Your task to perform on an android device: What's the weather today? Image 0: 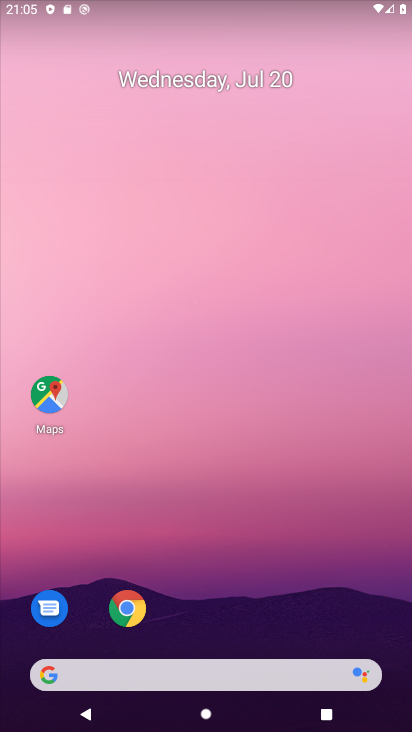
Step 0: click (261, 233)
Your task to perform on an android device: What's the weather today? Image 1: 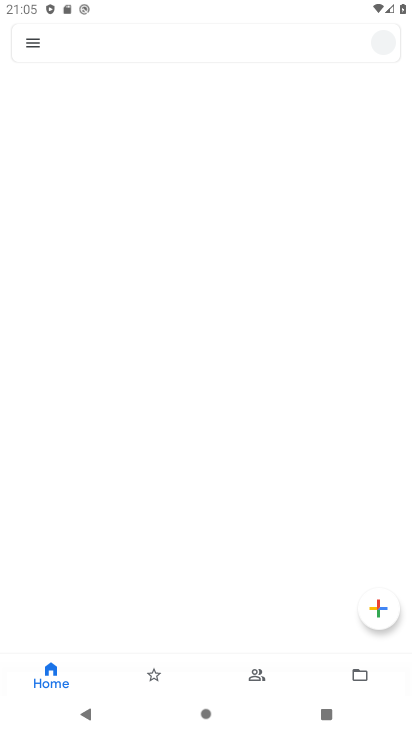
Step 1: drag from (272, 524) to (284, 117)
Your task to perform on an android device: What's the weather today? Image 2: 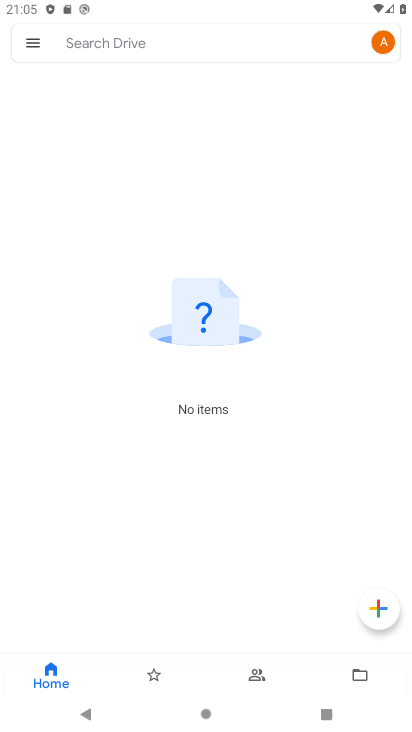
Step 2: press back button
Your task to perform on an android device: What's the weather today? Image 3: 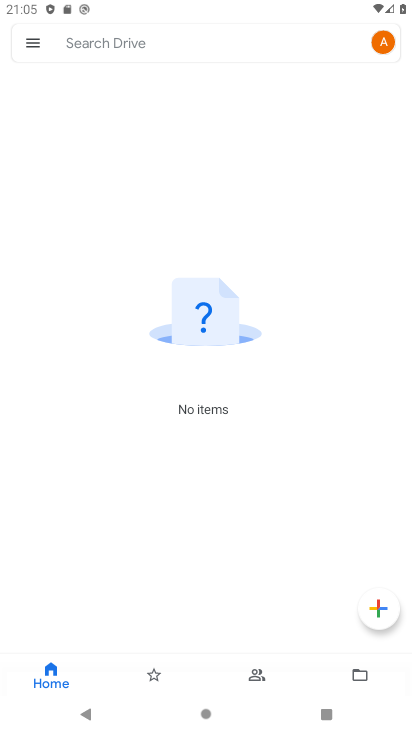
Step 3: press back button
Your task to perform on an android device: What's the weather today? Image 4: 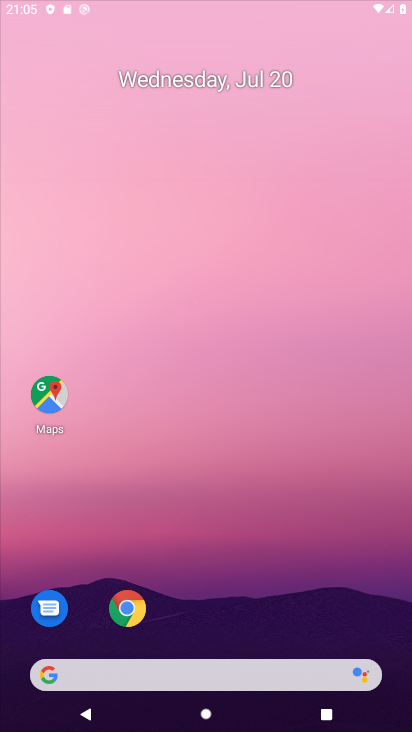
Step 4: press back button
Your task to perform on an android device: What's the weather today? Image 5: 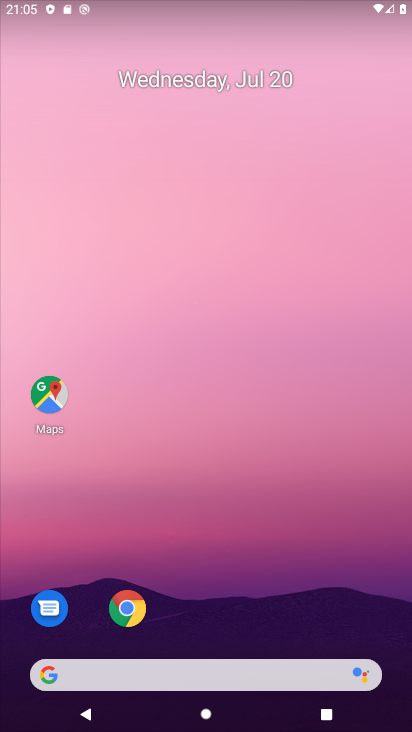
Step 5: drag from (63, 145) to (392, 308)
Your task to perform on an android device: What's the weather today? Image 6: 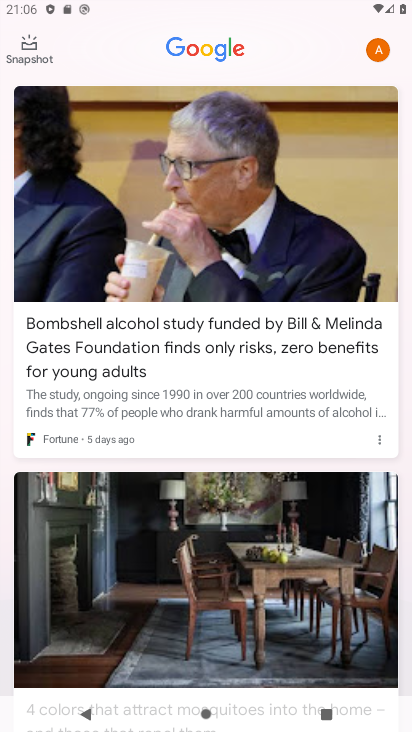
Step 6: drag from (133, 71) to (228, 561)
Your task to perform on an android device: What's the weather today? Image 7: 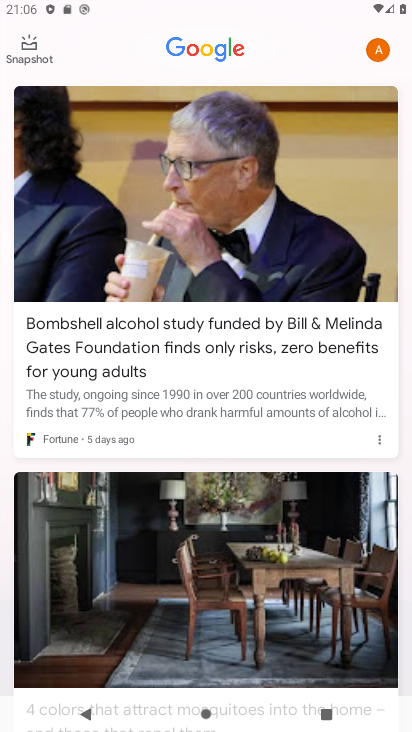
Step 7: drag from (247, 180) to (279, 472)
Your task to perform on an android device: What's the weather today? Image 8: 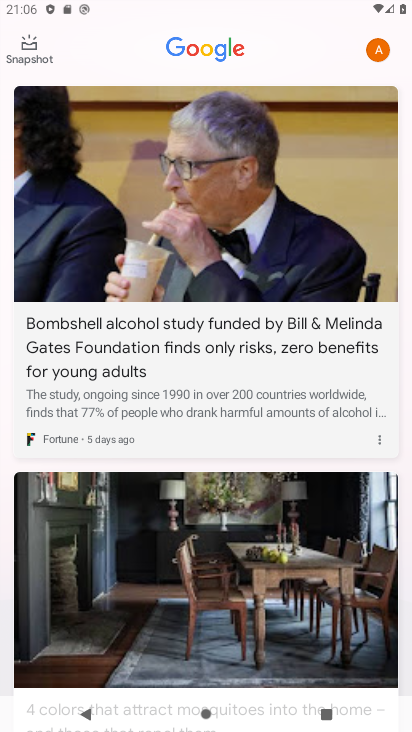
Step 8: drag from (288, 198) to (288, 571)
Your task to perform on an android device: What's the weather today? Image 9: 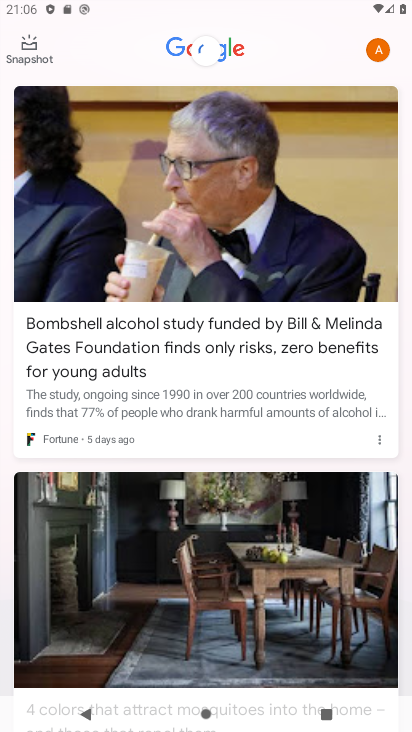
Step 9: drag from (208, 385) to (208, 568)
Your task to perform on an android device: What's the weather today? Image 10: 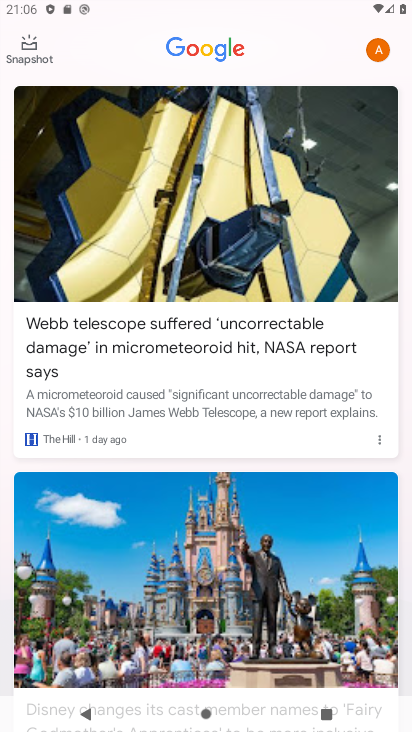
Step 10: drag from (103, 81) to (394, 292)
Your task to perform on an android device: What's the weather today? Image 11: 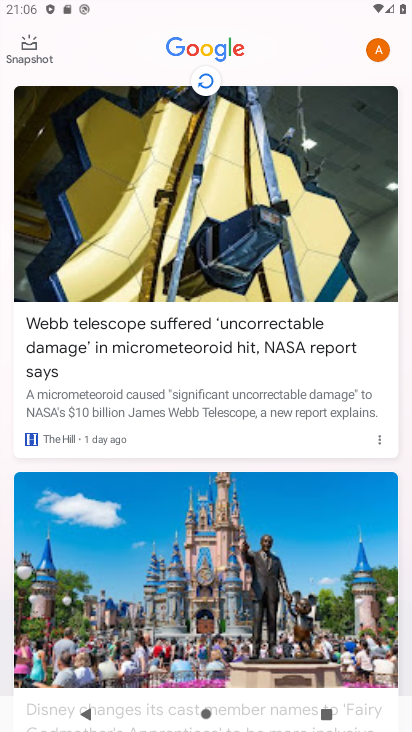
Step 11: press back button
Your task to perform on an android device: What's the weather today? Image 12: 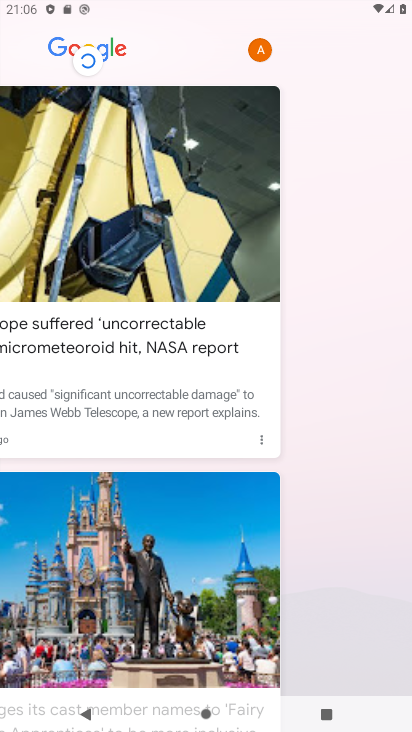
Step 12: press back button
Your task to perform on an android device: What's the weather today? Image 13: 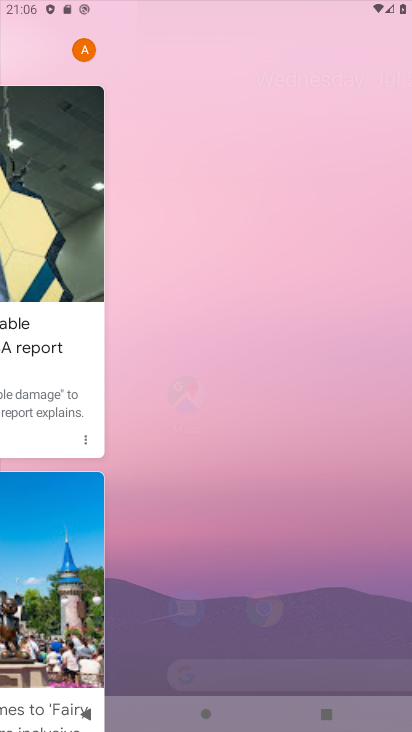
Step 13: click (409, 142)
Your task to perform on an android device: What's the weather today? Image 14: 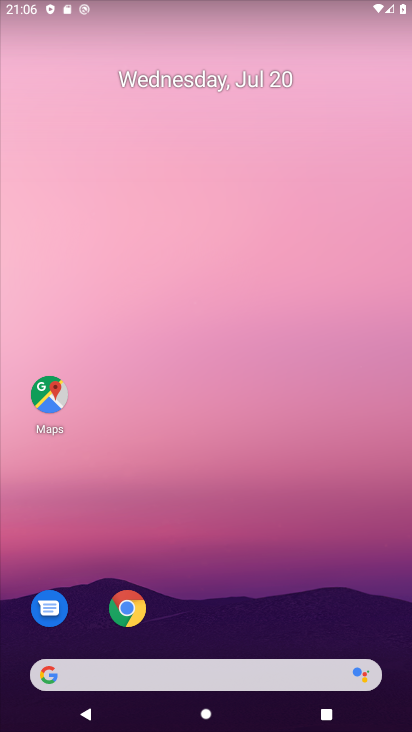
Step 14: press back button
Your task to perform on an android device: What's the weather today? Image 15: 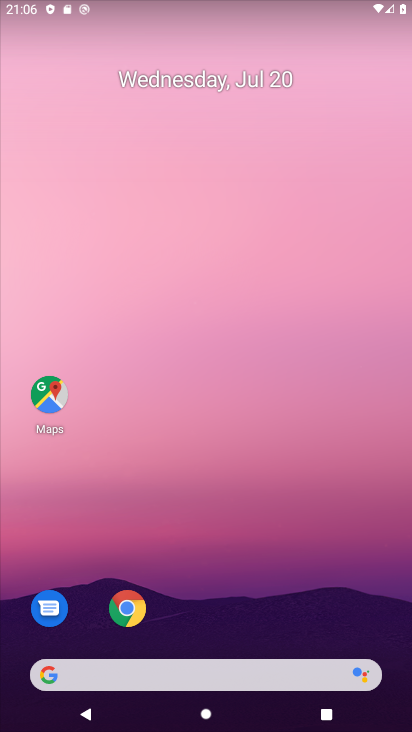
Step 15: drag from (158, 554) to (141, 195)
Your task to perform on an android device: What's the weather today? Image 16: 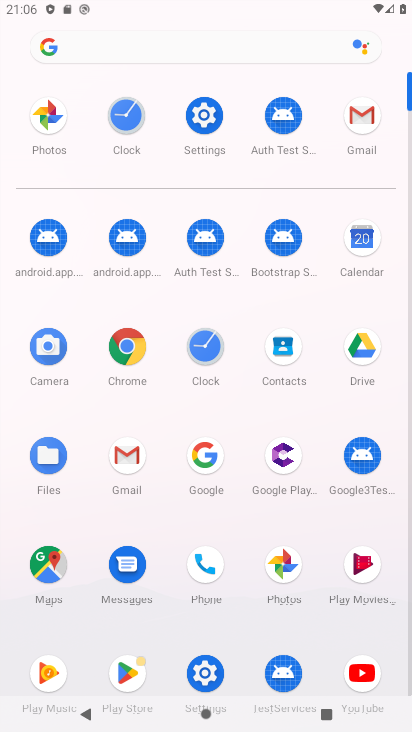
Step 16: drag from (167, 630) to (167, 276)
Your task to perform on an android device: What's the weather today? Image 17: 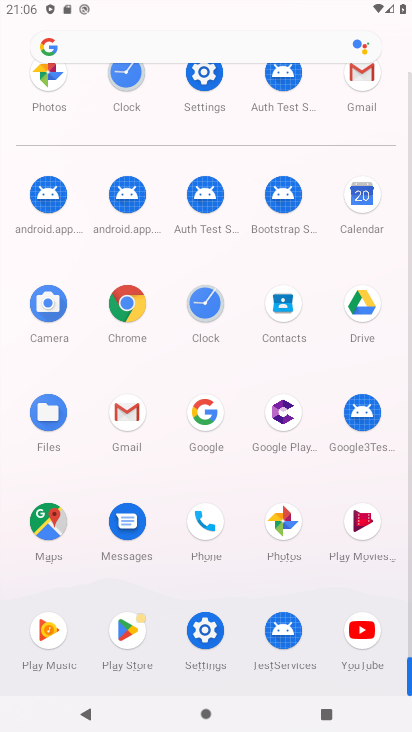
Step 17: click (127, 310)
Your task to perform on an android device: What's the weather today? Image 18: 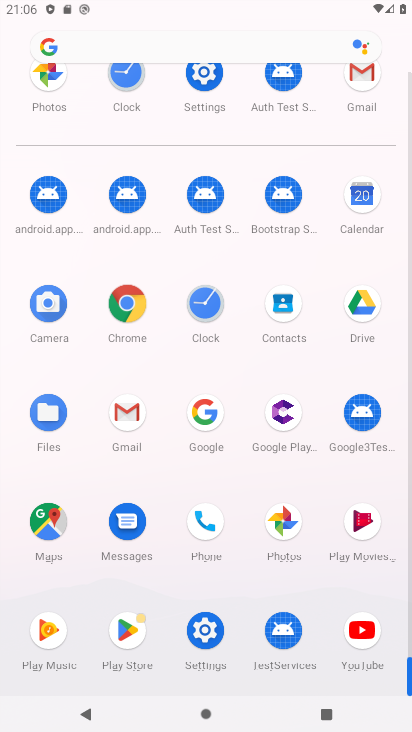
Step 18: click (137, 301)
Your task to perform on an android device: What's the weather today? Image 19: 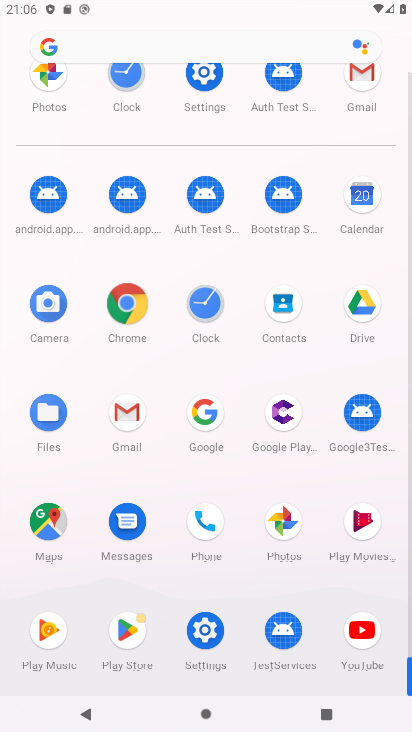
Step 19: click (138, 302)
Your task to perform on an android device: What's the weather today? Image 20: 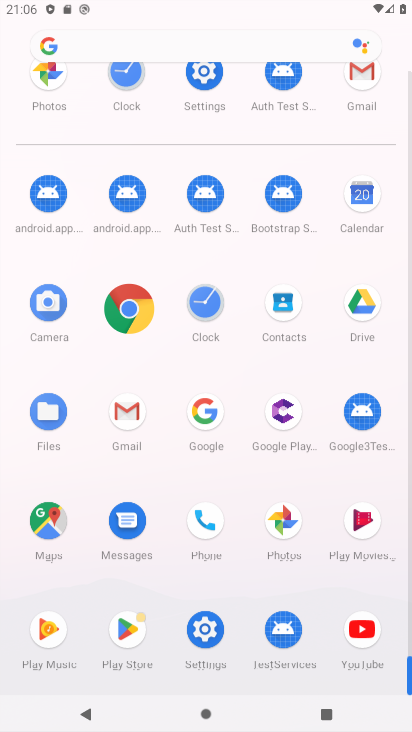
Step 20: click (138, 302)
Your task to perform on an android device: What's the weather today? Image 21: 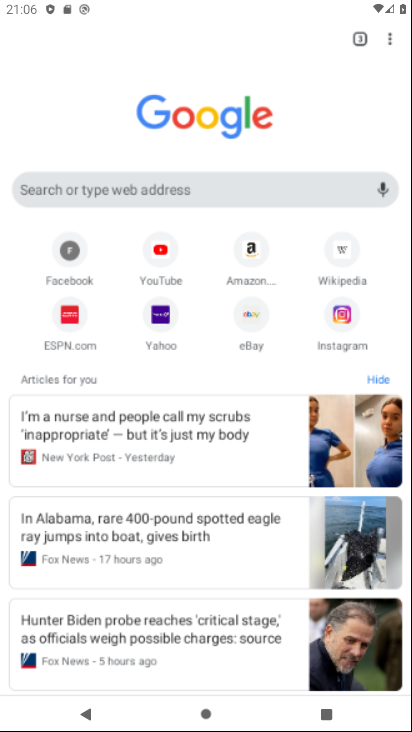
Step 21: click (138, 302)
Your task to perform on an android device: What's the weather today? Image 22: 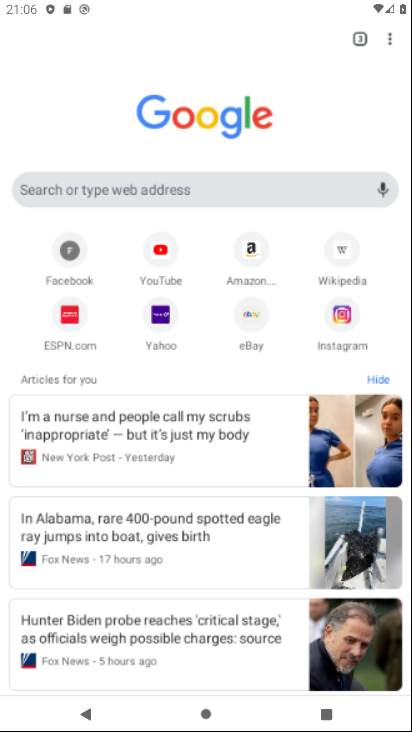
Step 22: click (139, 301)
Your task to perform on an android device: What's the weather today? Image 23: 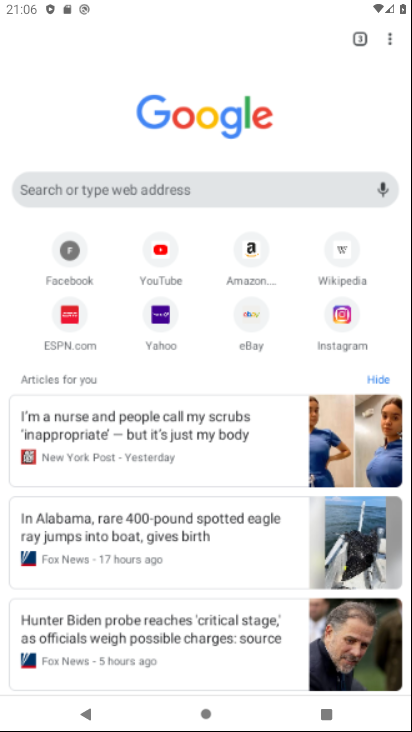
Step 23: click (92, 189)
Your task to perform on an android device: What's the weather today? Image 24: 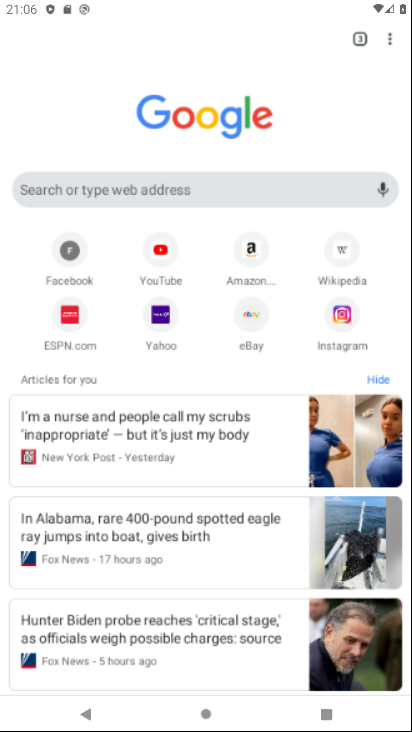
Step 24: click (106, 187)
Your task to perform on an android device: What's the weather today? Image 25: 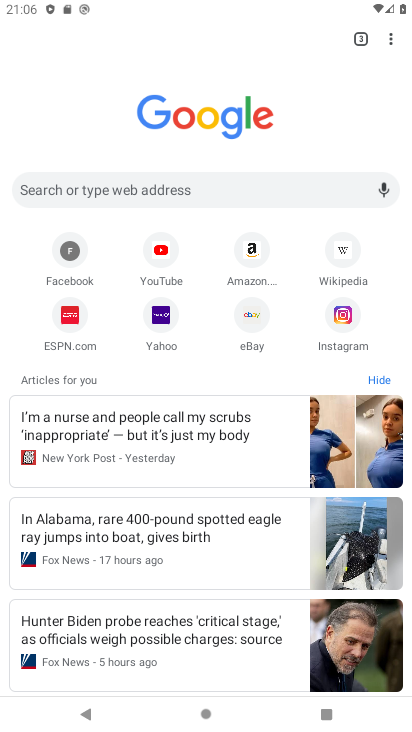
Step 25: click (79, 183)
Your task to perform on an android device: What's the weather today? Image 26: 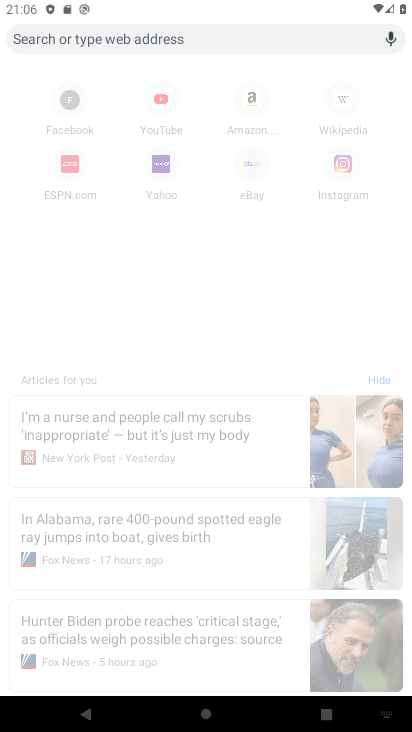
Step 26: type "weather today?"
Your task to perform on an android device: What's the weather today? Image 27: 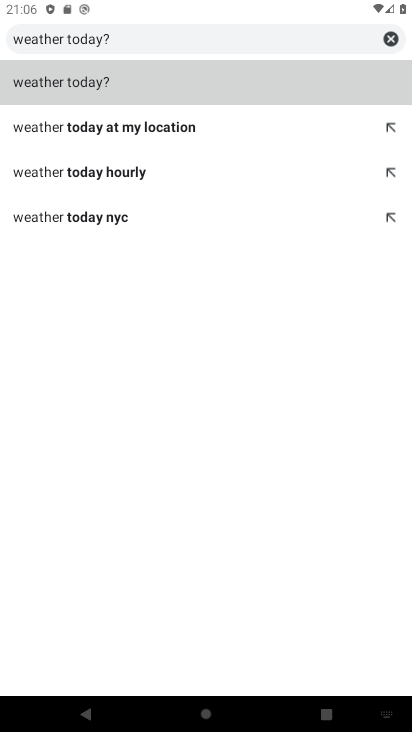
Step 27: click (50, 85)
Your task to perform on an android device: What's the weather today? Image 28: 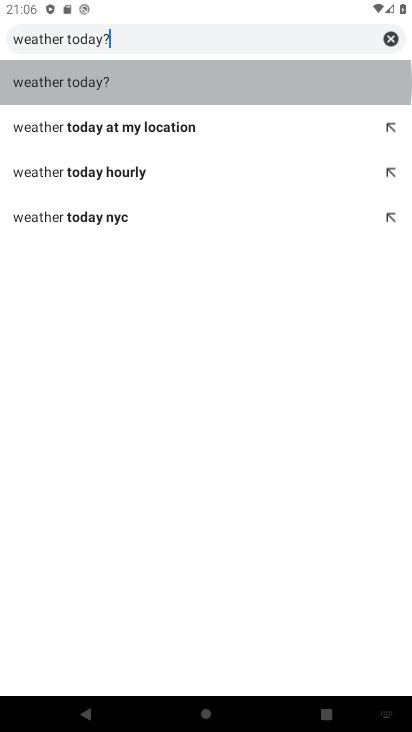
Step 28: click (51, 85)
Your task to perform on an android device: What's the weather today? Image 29: 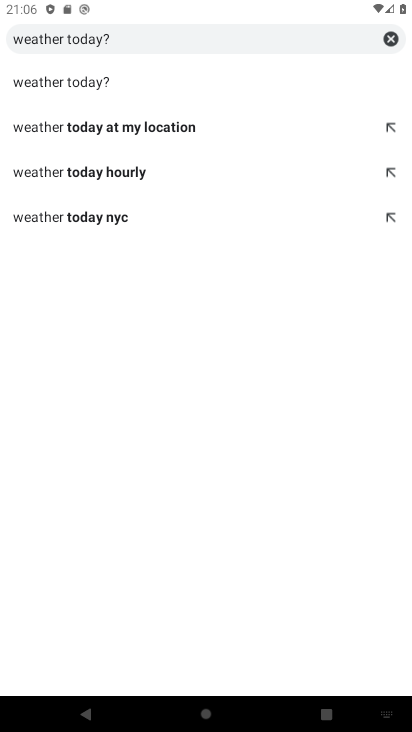
Step 29: click (104, 84)
Your task to perform on an android device: What's the weather today? Image 30: 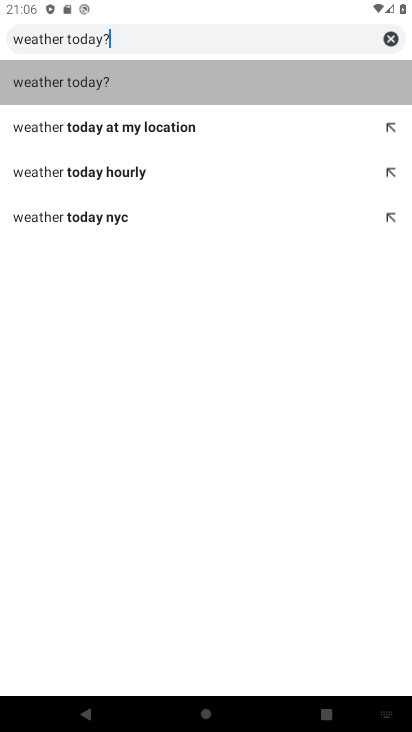
Step 30: click (104, 84)
Your task to perform on an android device: What's the weather today? Image 31: 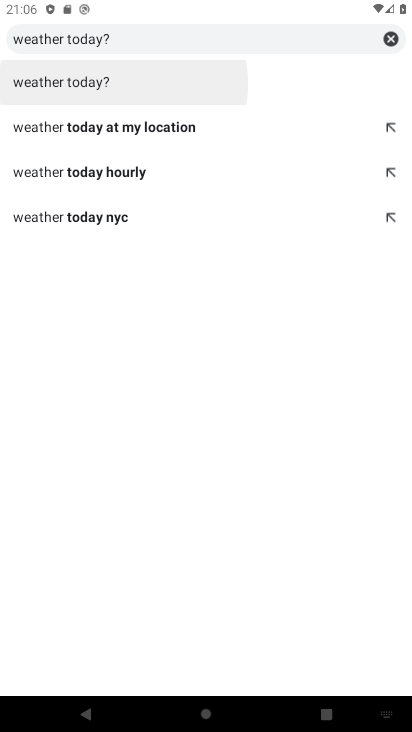
Step 31: click (104, 85)
Your task to perform on an android device: What's the weather today? Image 32: 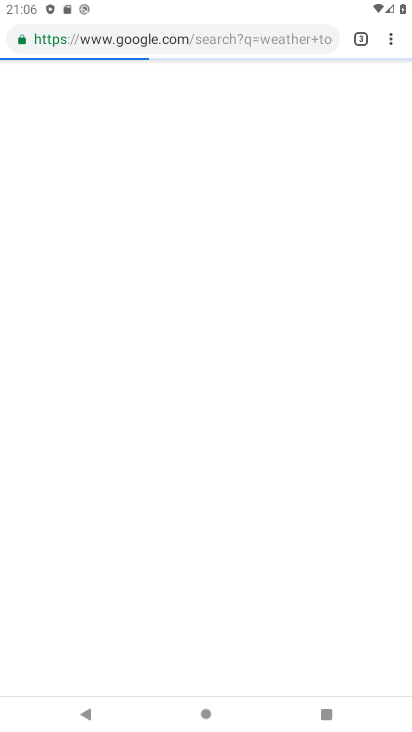
Step 32: task complete